Your task to perform on an android device: Do I have any events today? Image 0: 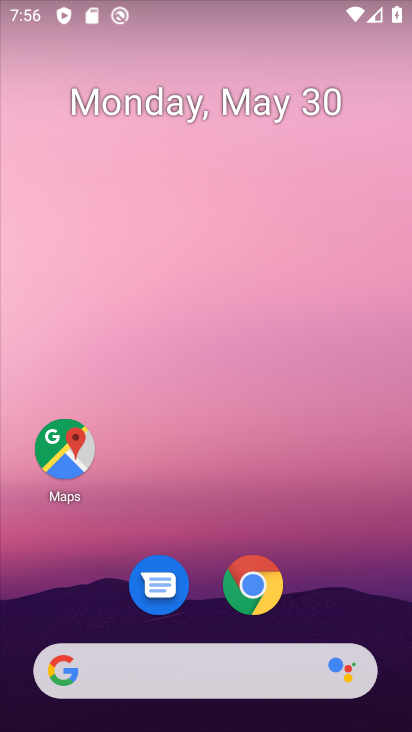
Step 0: drag from (198, 412) to (205, 49)
Your task to perform on an android device: Do I have any events today? Image 1: 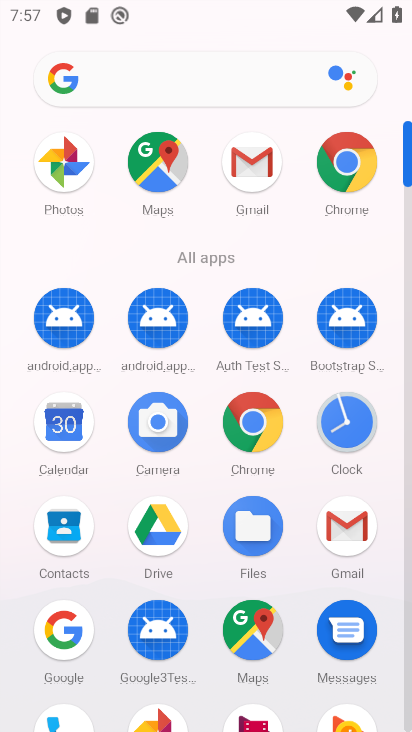
Step 1: click (63, 411)
Your task to perform on an android device: Do I have any events today? Image 2: 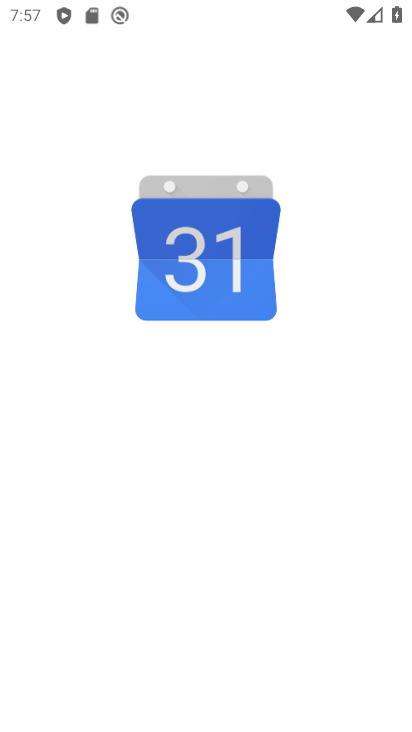
Step 2: click (66, 424)
Your task to perform on an android device: Do I have any events today? Image 3: 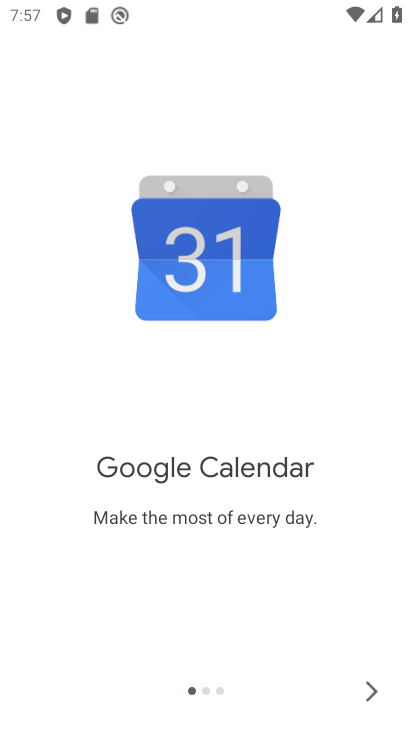
Step 3: click (366, 674)
Your task to perform on an android device: Do I have any events today? Image 4: 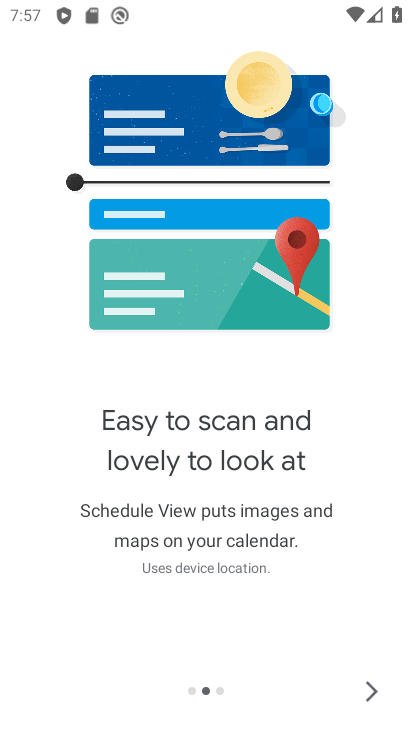
Step 4: click (366, 677)
Your task to perform on an android device: Do I have any events today? Image 5: 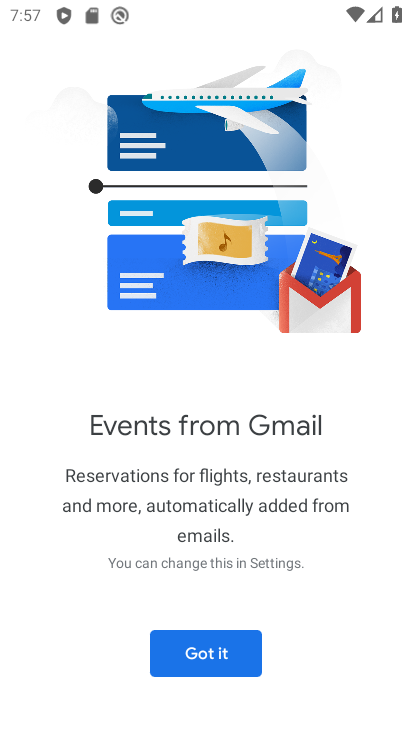
Step 5: click (366, 686)
Your task to perform on an android device: Do I have any events today? Image 6: 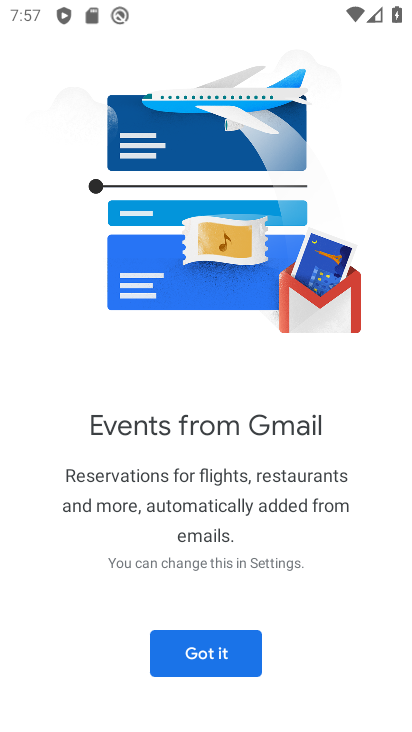
Step 6: click (366, 686)
Your task to perform on an android device: Do I have any events today? Image 7: 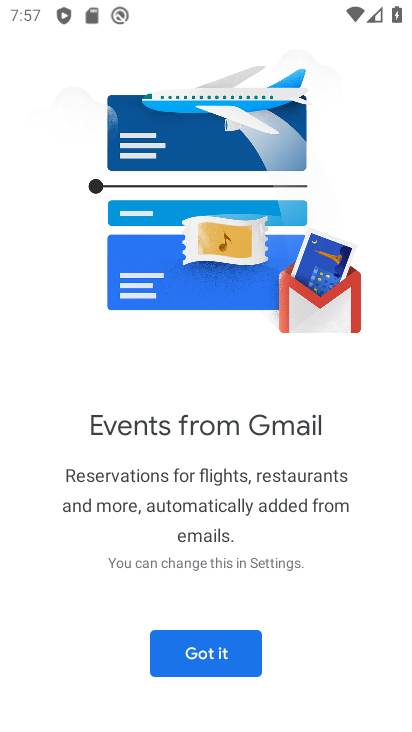
Step 7: click (232, 658)
Your task to perform on an android device: Do I have any events today? Image 8: 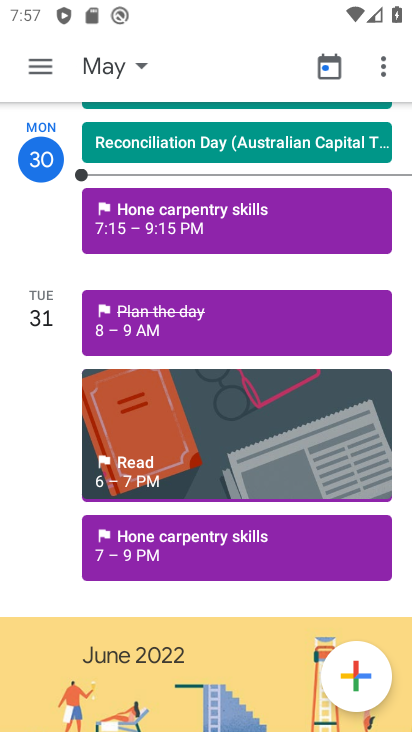
Step 8: task complete